Your task to perform on an android device: How much does a 3 bedroom apartment rent for in San Francisco? Image 0: 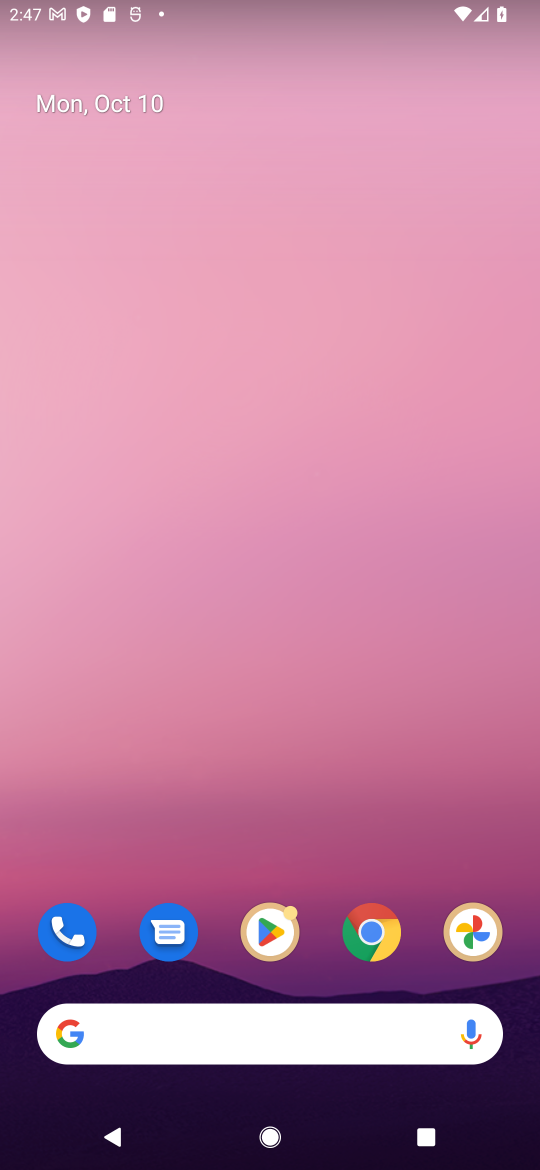
Step 0: click (366, 1043)
Your task to perform on an android device: How much does a 3 bedroom apartment rent for in San Francisco? Image 1: 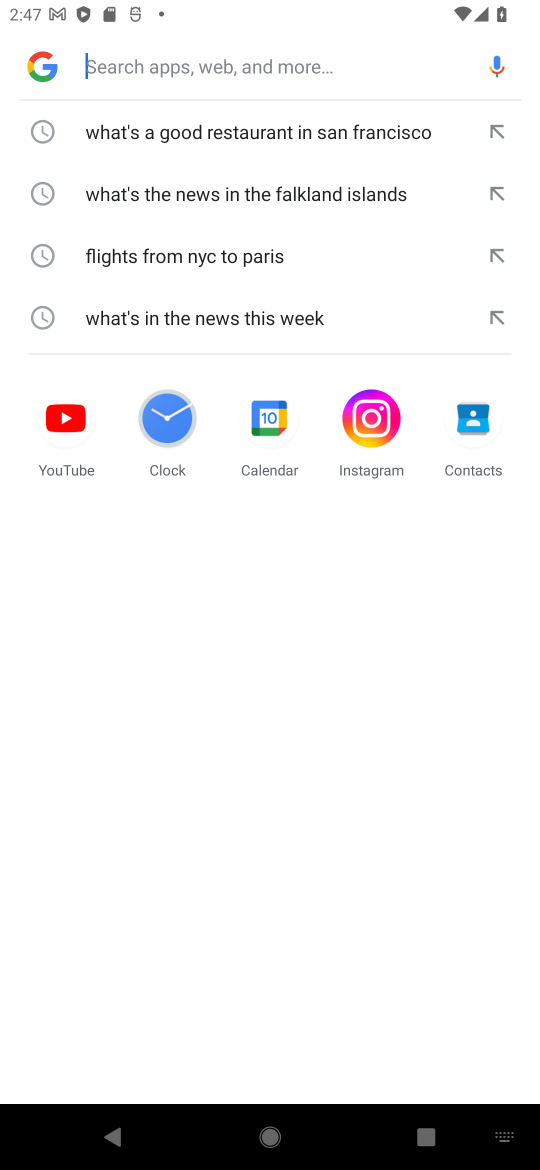
Step 1: type "How much does a 3 bedroom apartment rent for in San Francisco"
Your task to perform on an android device: How much does a 3 bedroom apartment rent for in San Francisco? Image 2: 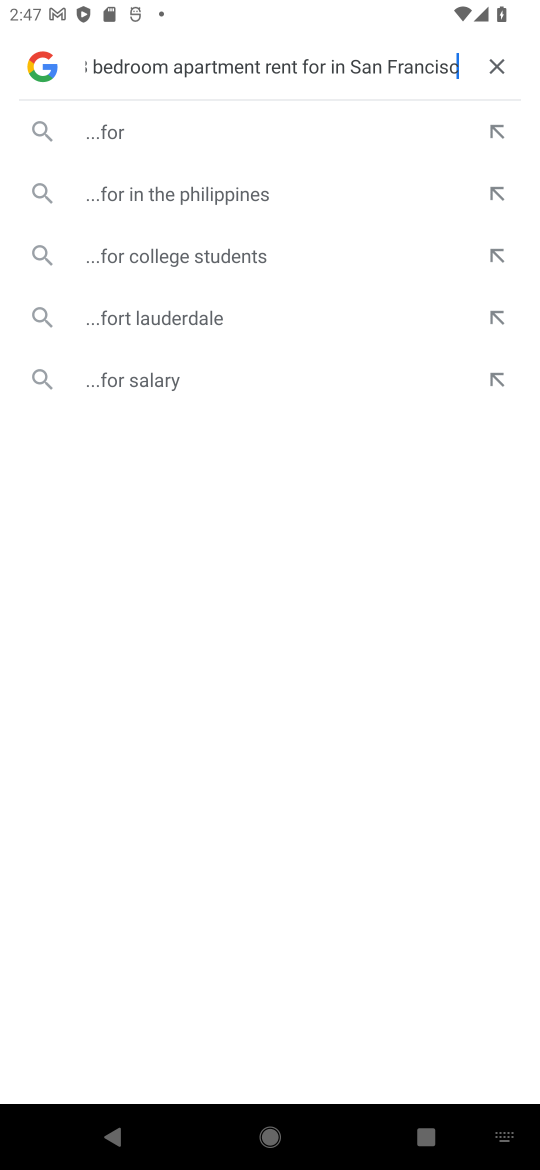
Step 2: press enter
Your task to perform on an android device: How much does a 3 bedroom apartment rent for in San Francisco? Image 3: 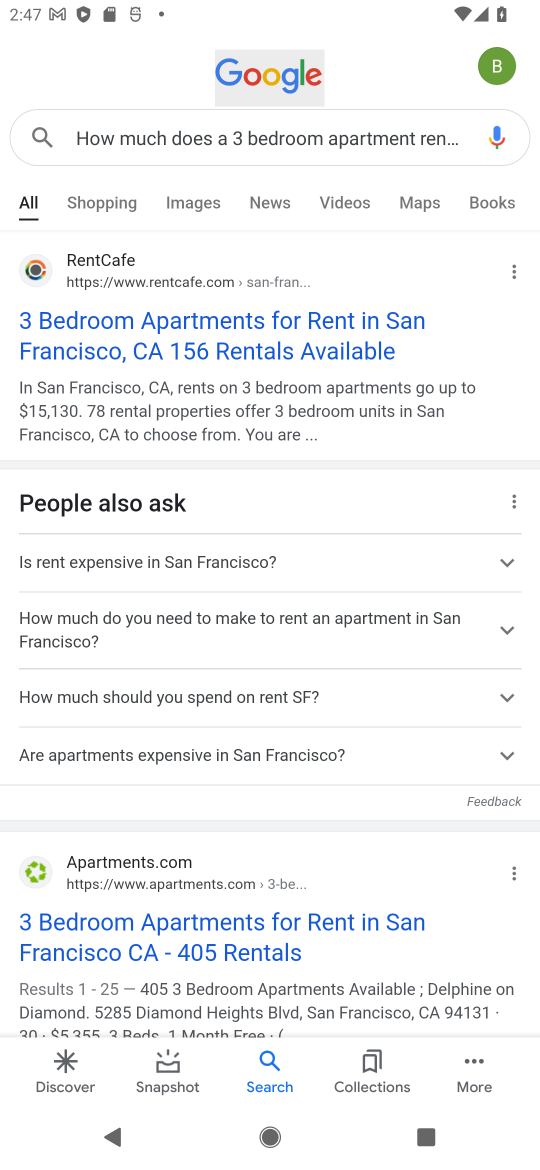
Step 3: click (286, 344)
Your task to perform on an android device: How much does a 3 bedroom apartment rent for in San Francisco? Image 4: 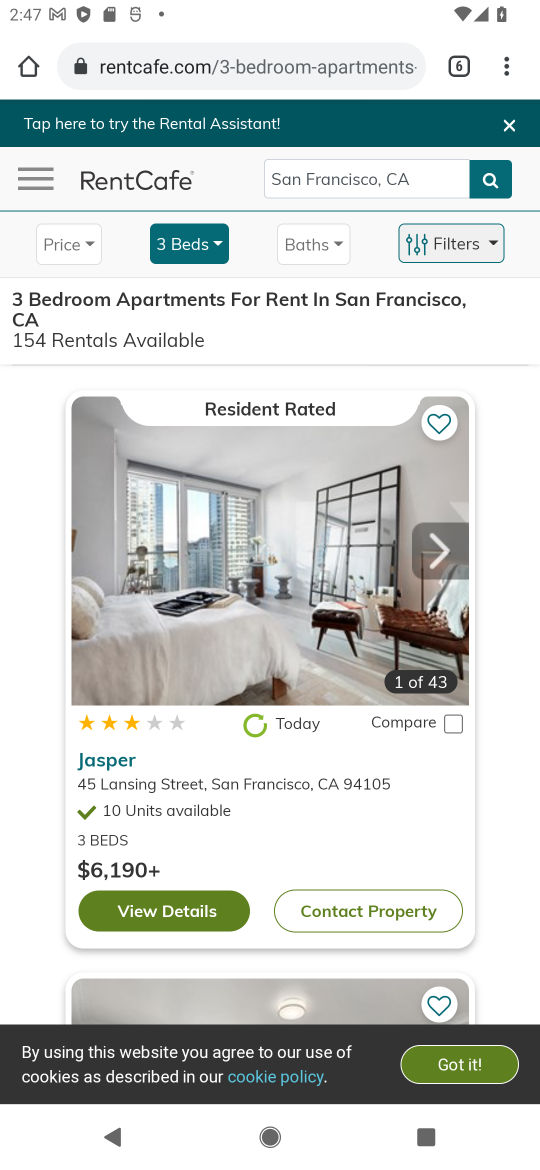
Step 4: task complete